Your task to perform on an android device: visit the assistant section in the google photos Image 0: 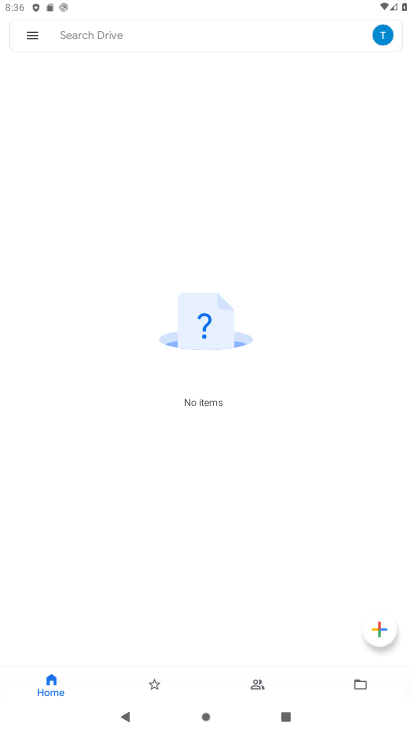
Step 0: press home button
Your task to perform on an android device: visit the assistant section in the google photos Image 1: 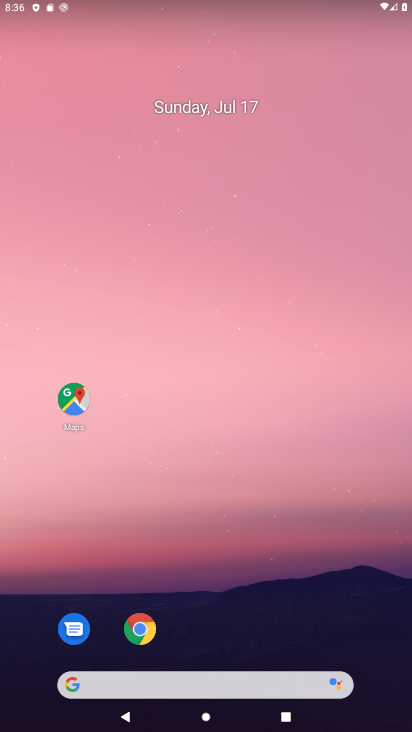
Step 1: drag from (264, 650) to (239, 102)
Your task to perform on an android device: visit the assistant section in the google photos Image 2: 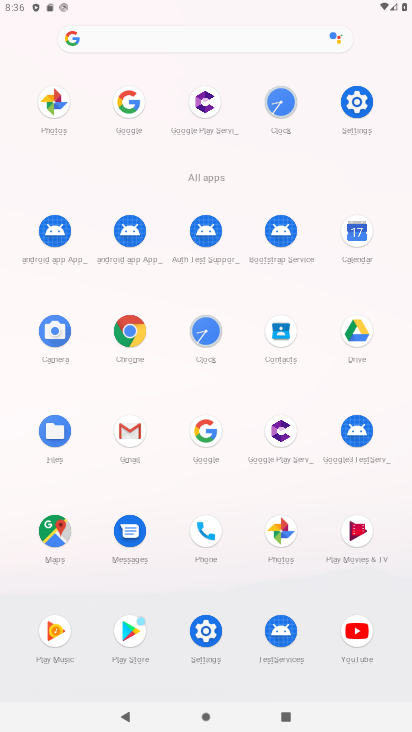
Step 2: click (277, 529)
Your task to perform on an android device: visit the assistant section in the google photos Image 3: 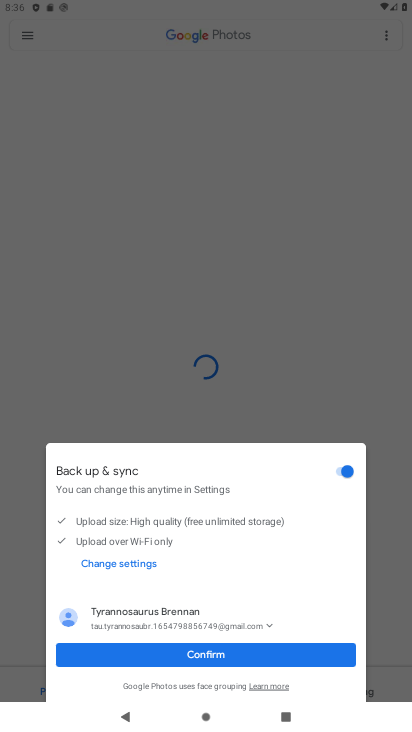
Step 3: click (245, 650)
Your task to perform on an android device: visit the assistant section in the google photos Image 4: 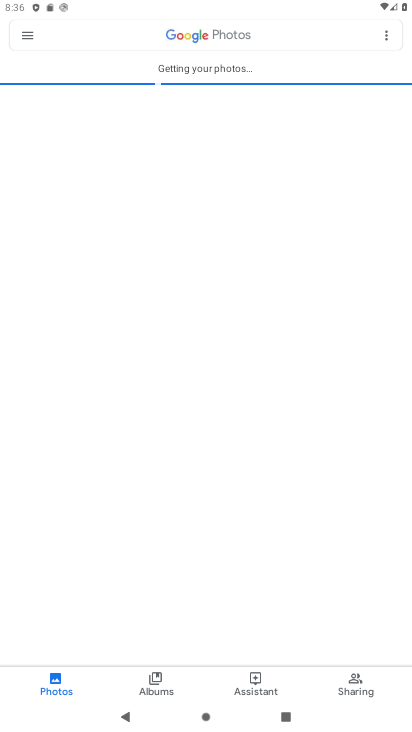
Step 4: click (267, 692)
Your task to perform on an android device: visit the assistant section in the google photos Image 5: 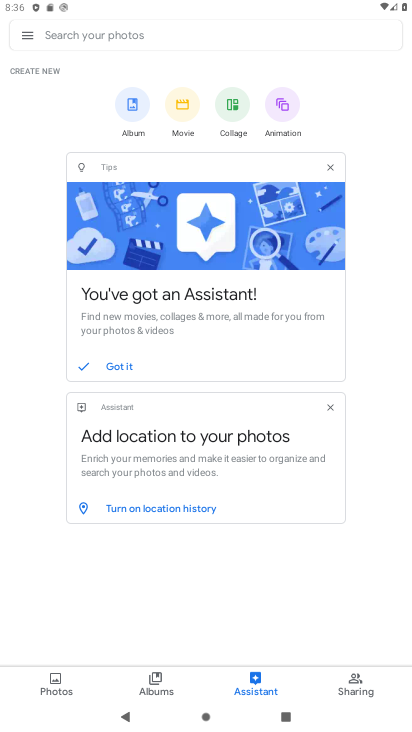
Step 5: task complete